Your task to perform on an android device: open app "Calculator" Image 0: 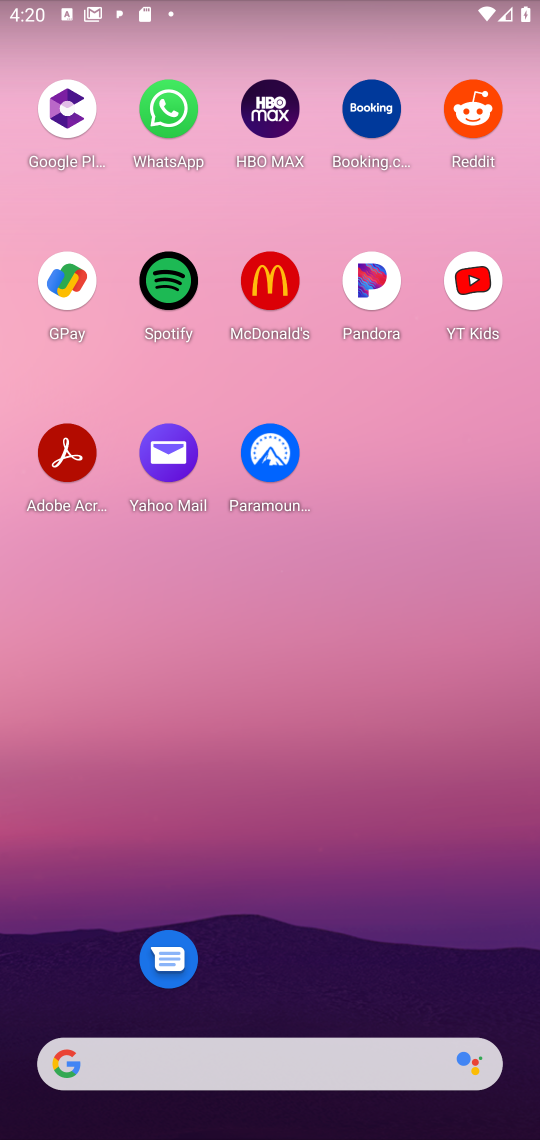
Step 0: drag from (390, 920) to (497, 226)
Your task to perform on an android device: open app "Calculator" Image 1: 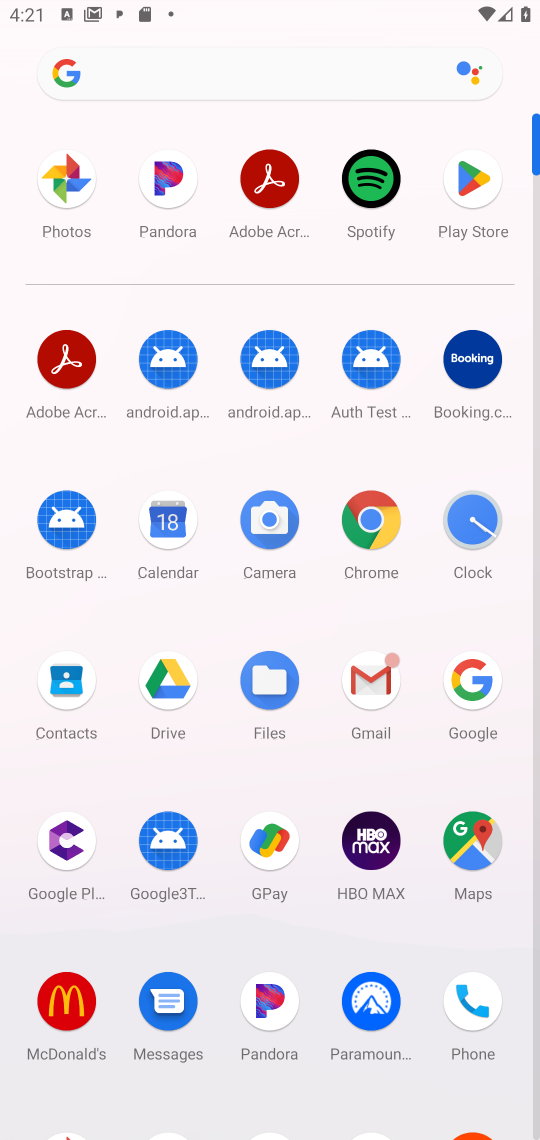
Step 1: click (186, 547)
Your task to perform on an android device: open app "Calculator" Image 2: 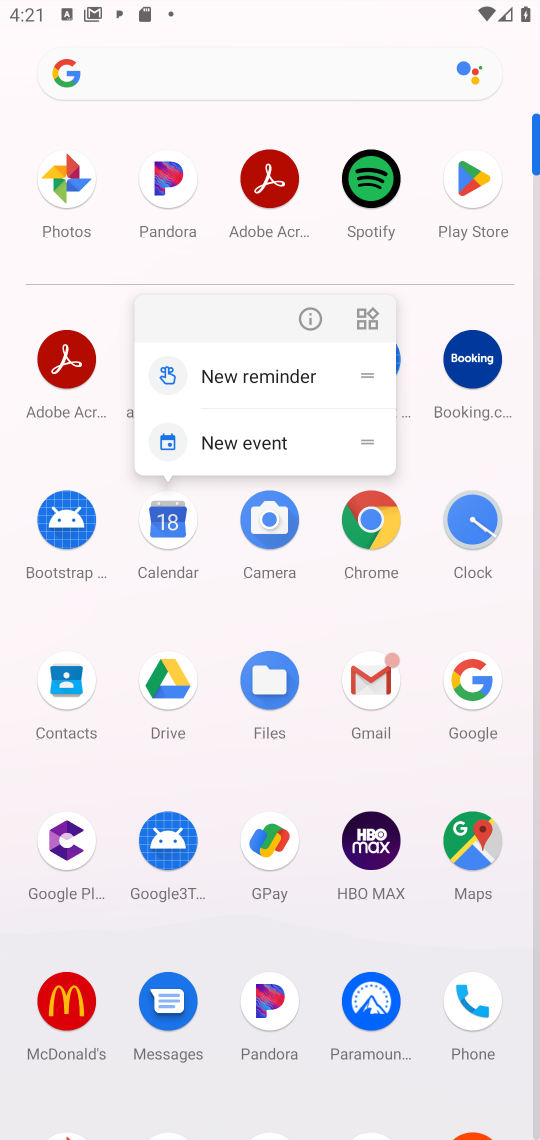
Step 2: task complete